Your task to perform on an android device: Open Google Chrome and open the bookmarks view Image 0: 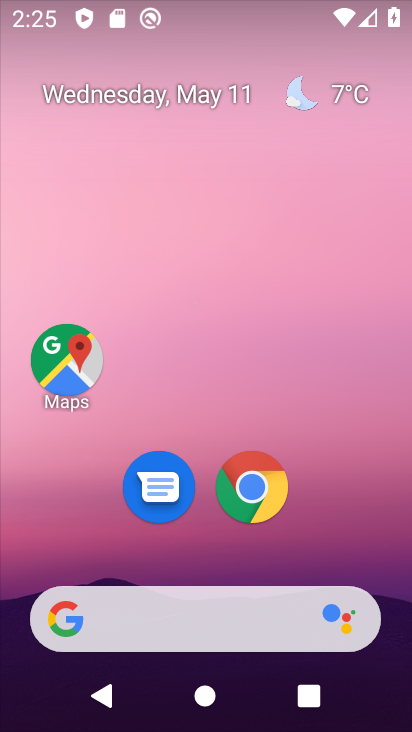
Step 0: click (91, 7)
Your task to perform on an android device: Open Google Chrome and open the bookmarks view Image 1: 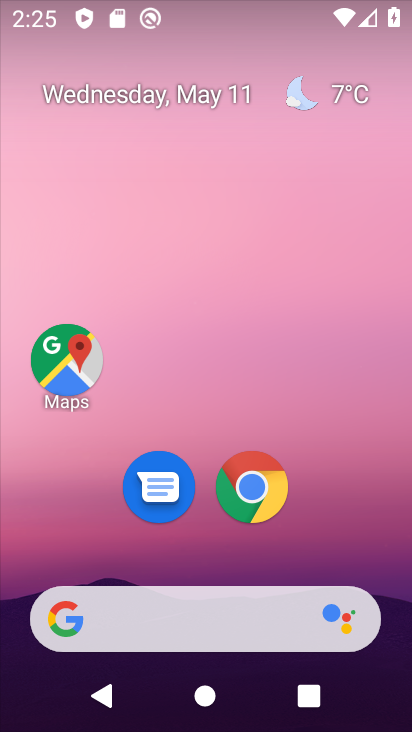
Step 1: drag from (236, 578) to (275, 13)
Your task to perform on an android device: Open Google Chrome and open the bookmarks view Image 2: 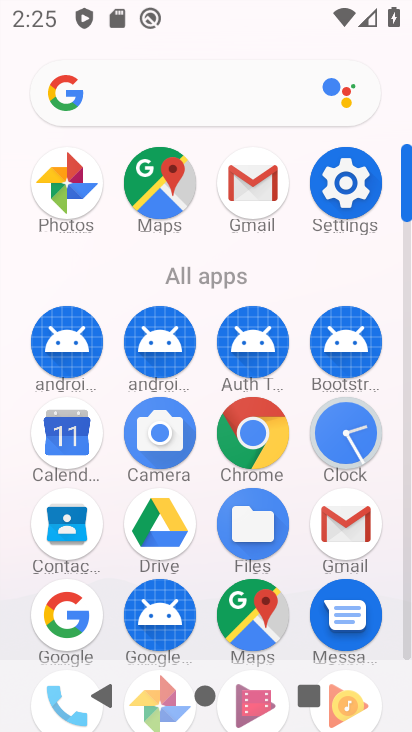
Step 2: click (238, 418)
Your task to perform on an android device: Open Google Chrome and open the bookmarks view Image 3: 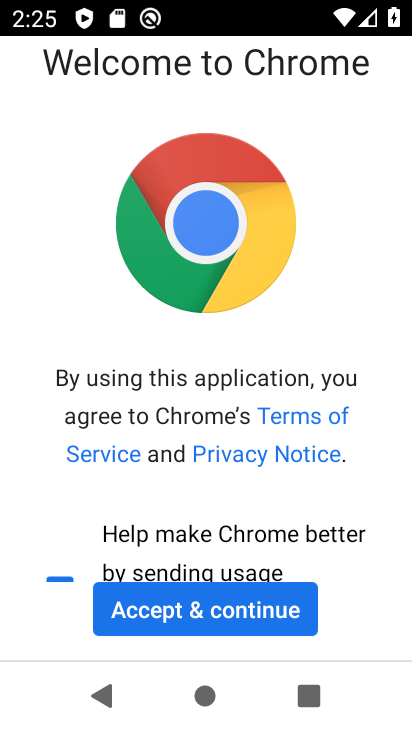
Step 3: click (165, 599)
Your task to perform on an android device: Open Google Chrome and open the bookmarks view Image 4: 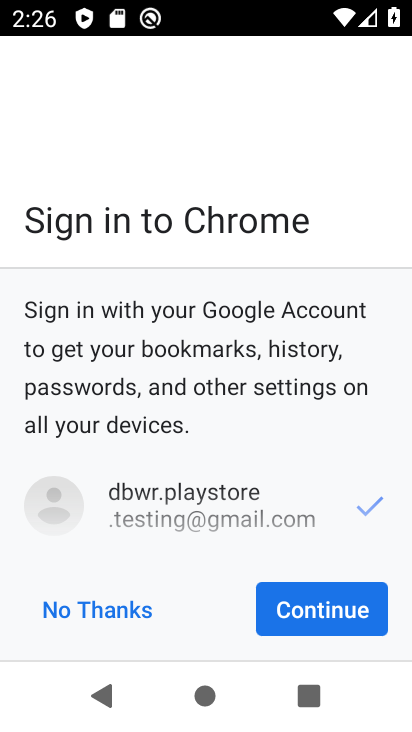
Step 4: drag from (132, 614) to (220, 634)
Your task to perform on an android device: Open Google Chrome and open the bookmarks view Image 5: 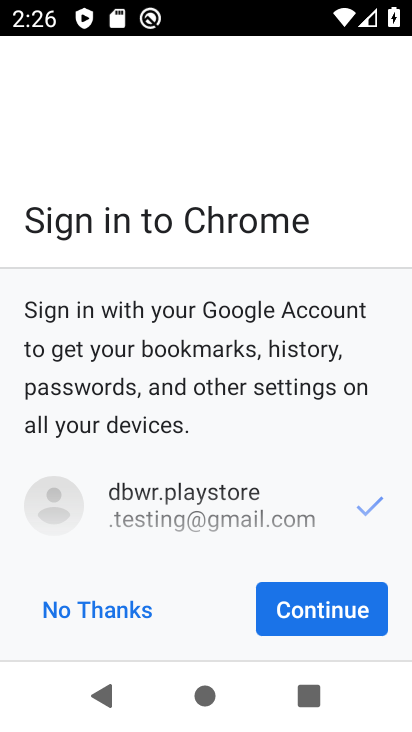
Step 5: click (142, 607)
Your task to perform on an android device: Open Google Chrome and open the bookmarks view Image 6: 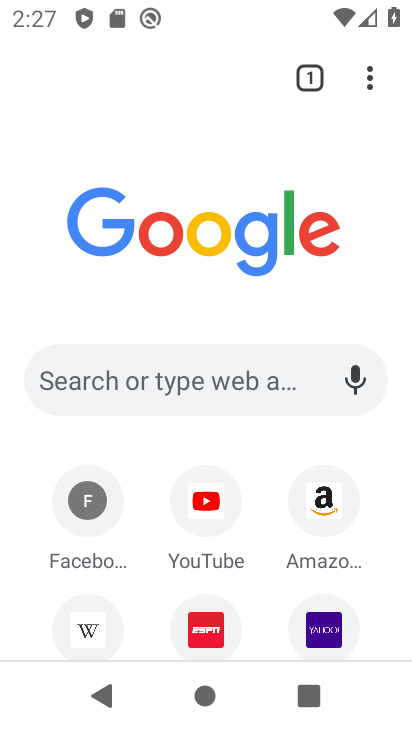
Step 6: click (374, 66)
Your task to perform on an android device: Open Google Chrome and open the bookmarks view Image 7: 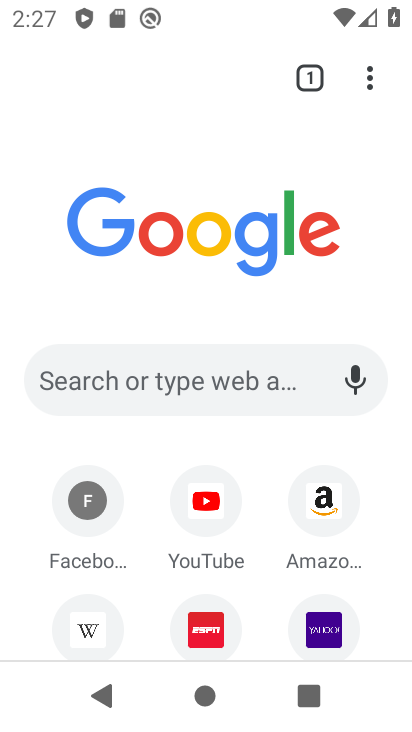
Step 7: click (370, 72)
Your task to perform on an android device: Open Google Chrome and open the bookmarks view Image 8: 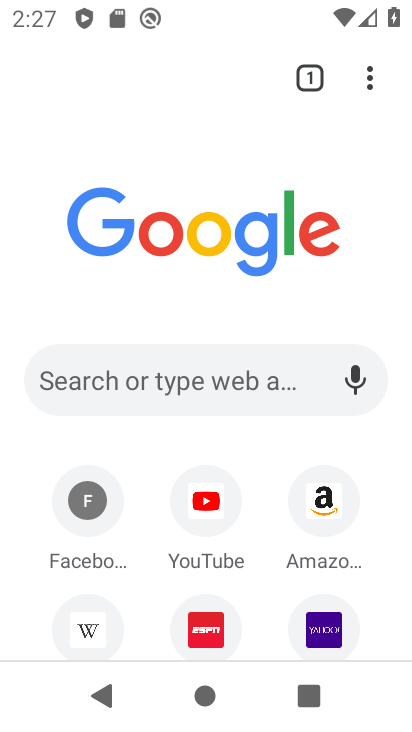
Step 8: click (361, 83)
Your task to perform on an android device: Open Google Chrome and open the bookmarks view Image 9: 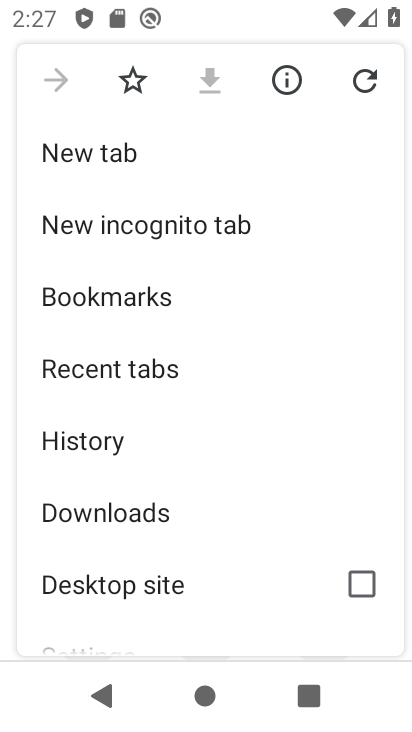
Step 9: click (246, 284)
Your task to perform on an android device: Open Google Chrome and open the bookmarks view Image 10: 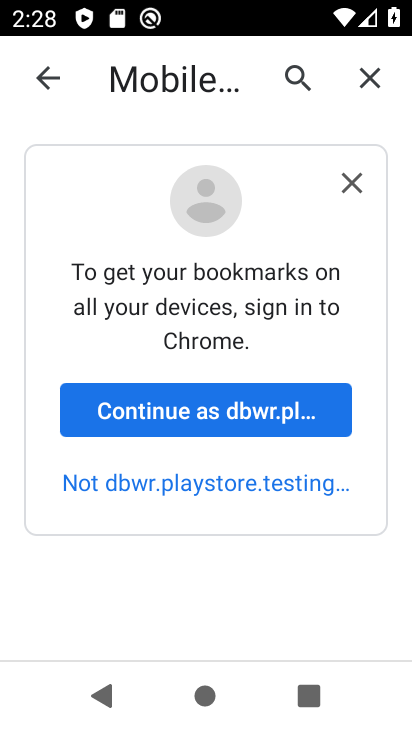
Step 10: task complete